Your task to perform on an android device: Go to Wikipedia Image 0: 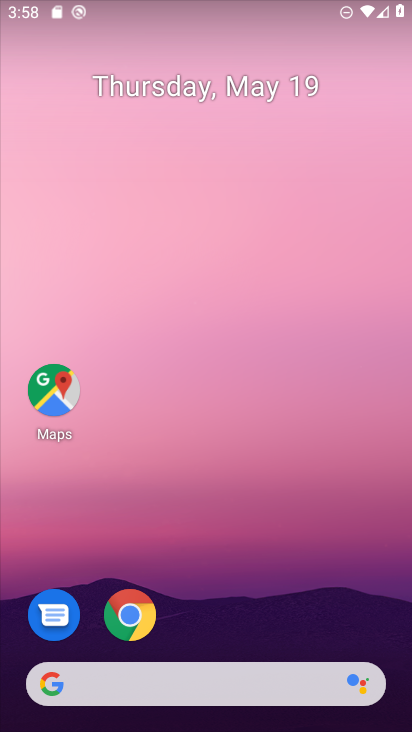
Step 0: click (126, 615)
Your task to perform on an android device: Go to Wikipedia Image 1: 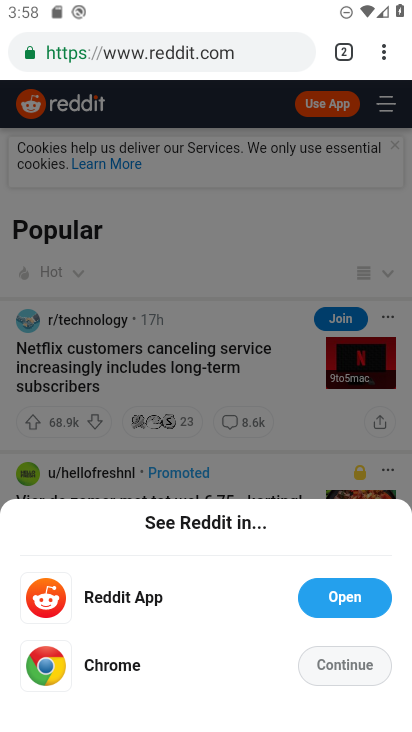
Step 1: click (348, 44)
Your task to perform on an android device: Go to Wikipedia Image 2: 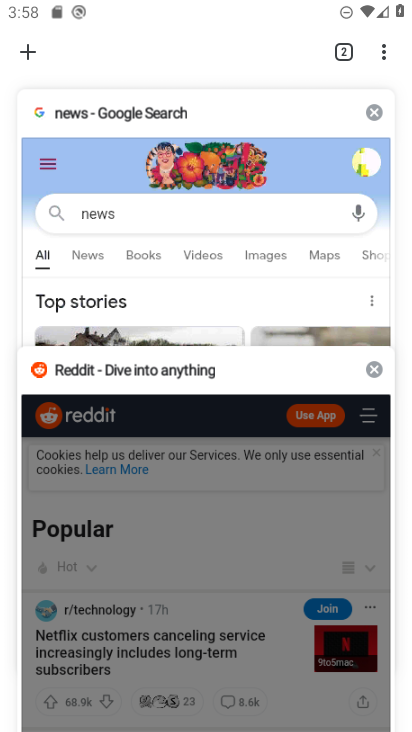
Step 2: click (15, 49)
Your task to perform on an android device: Go to Wikipedia Image 3: 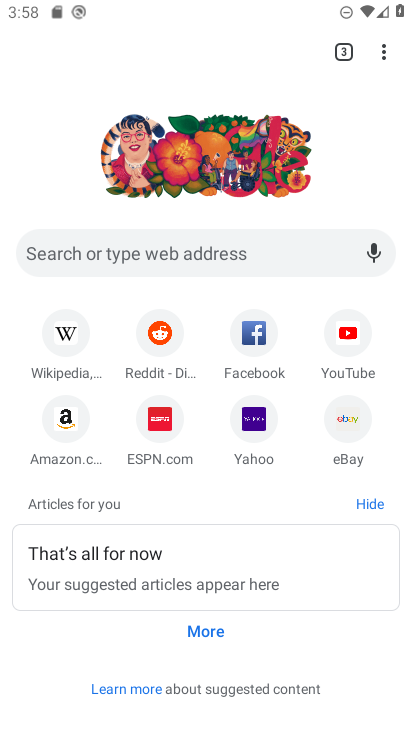
Step 3: click (61, 336)
Your task to perform on an android device: Go to Wikipedia Image 4: 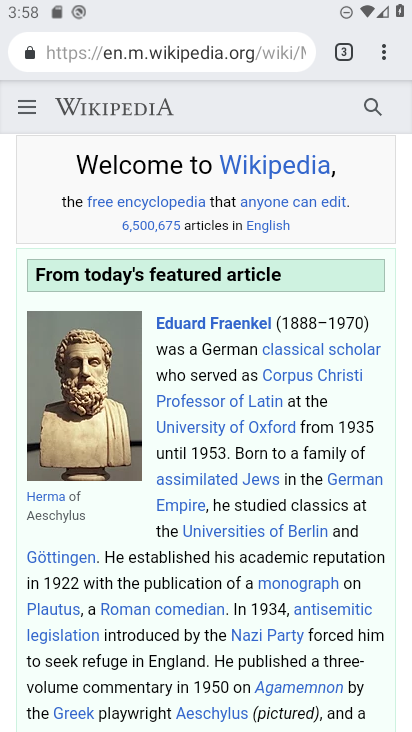
Step 4: task complete